Your task to perform on an android device: turn off smart reply in the gmail app Image 0: 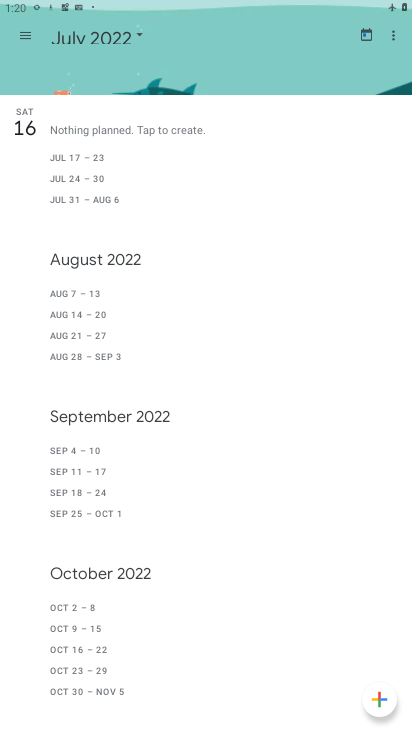
Step 0: press home button
Your task to perform on an android device: turn off smart reply in the gmail app Image 1: 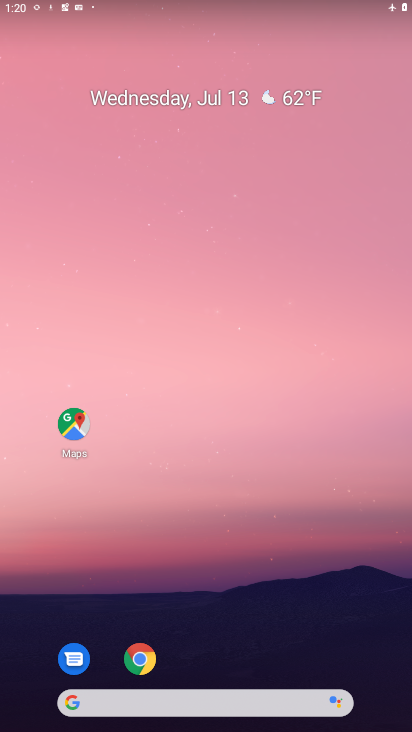
Step 1: drag from (242, 723) to (209, 122)
Your task to perform on an android device: turn off smart reply in the gmail app Image 2: 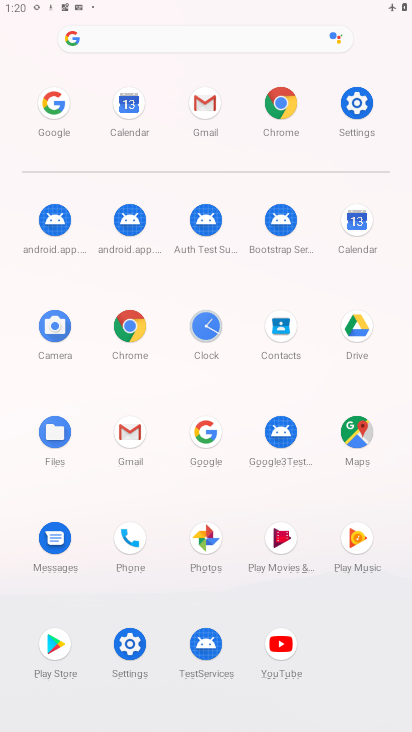
Step 2: click (129, 424)
Your task to perform on an android device: turn off smart reply in the gmail app Image 3: 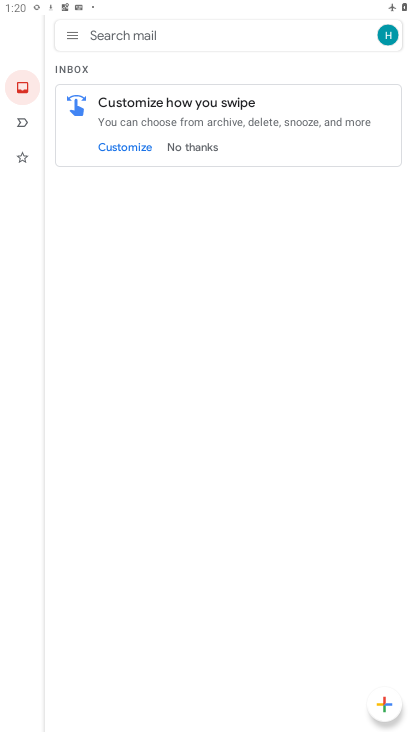
Step 3: click (69, 33)
Your task to perform on an android device: turn off smart reply in the gmail app Image 4: 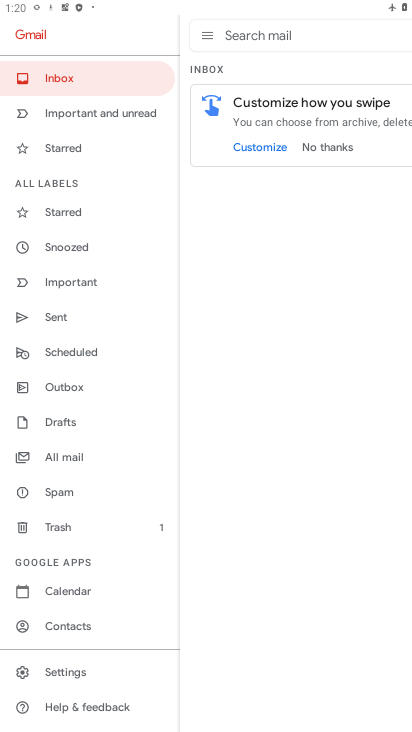
Step 4: click (65, 660)
Your task to perform on an android device: turn off smart reply in the gmail app Image 5: 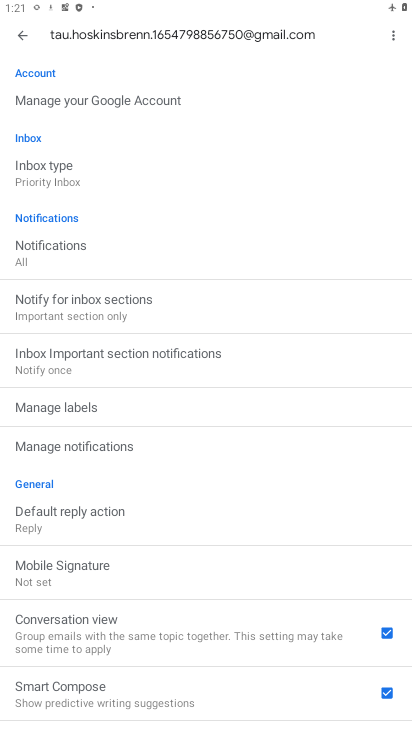
Step 5: drag from (163, 671) to (144, 537)
Your task to perform on an android device: turn off smart reply in the gmail app Image 6: 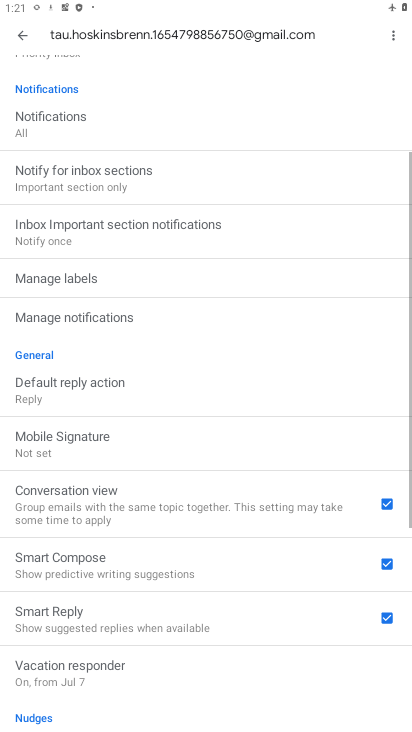
Step 6: drag from (128, 371) to (126, 283)
Your task to perform on an android device: turn off smart reply in the gmail app Image 7: 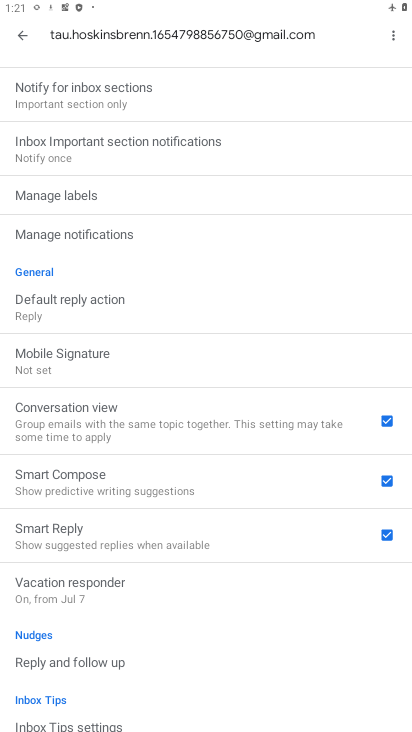
Step 7: click (384, 532)
Your task to perform on an android device: turn off smart reply in the gmail app Image 8: 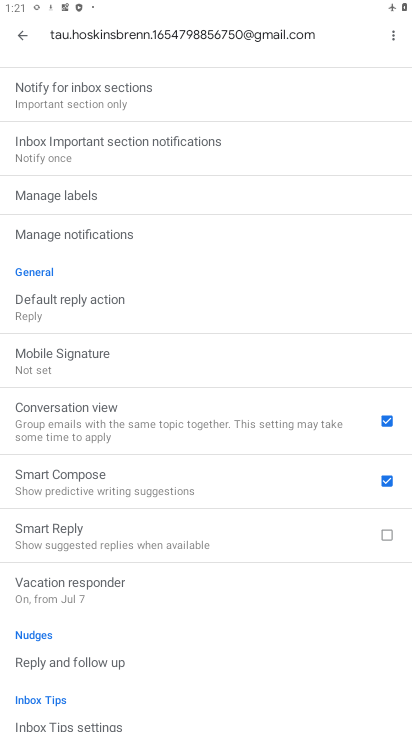
Step 8: task complete